Your task to perform on an android device: Empty the shopping cart on ebay.com. Search for "usb-b" on ebay.com, select the first entry, and add it to the cart. Image 0: 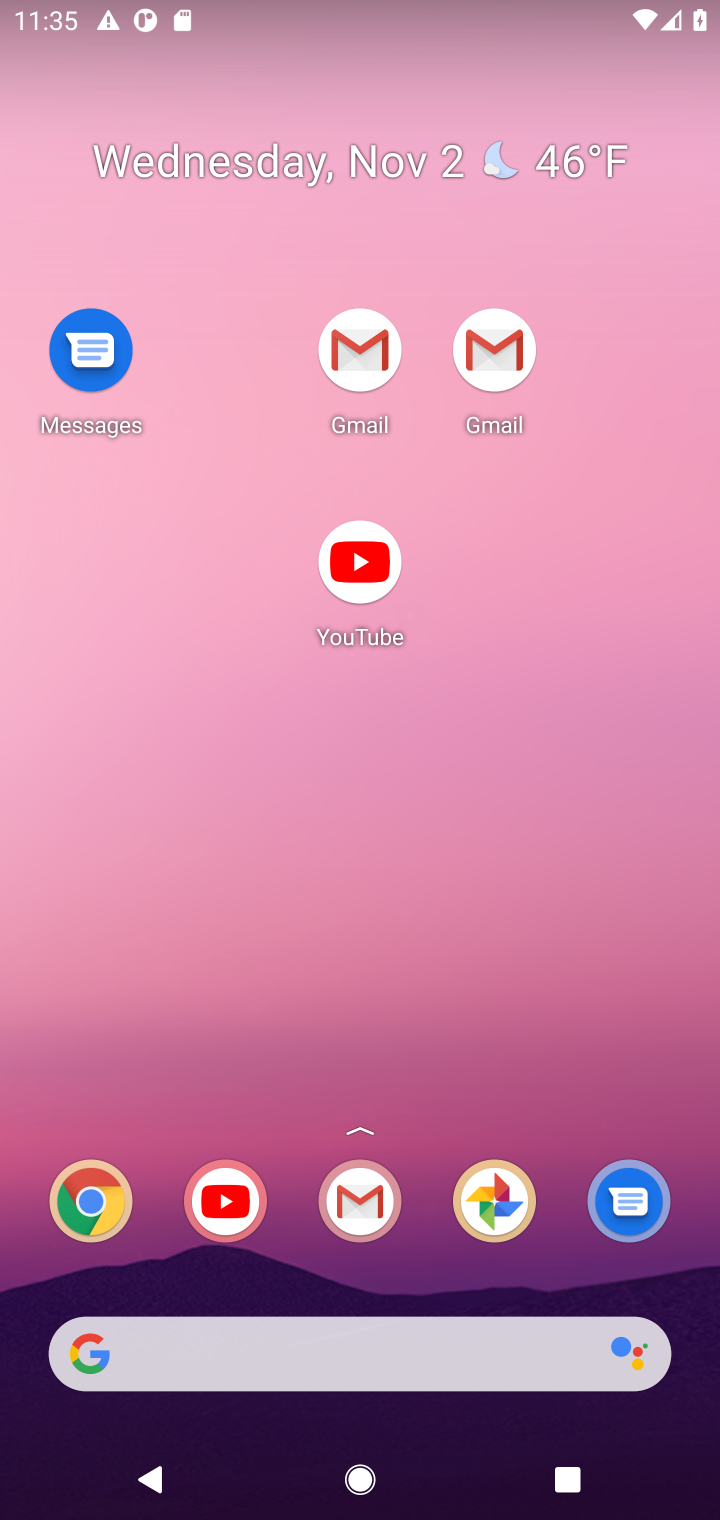
Step 0: press home button
Your task to perform on an android device: Empty the shopping cart on ebay.com. Search for "usb-b" on ebay.com, select the first entry, and add it to the cart. Image 1: 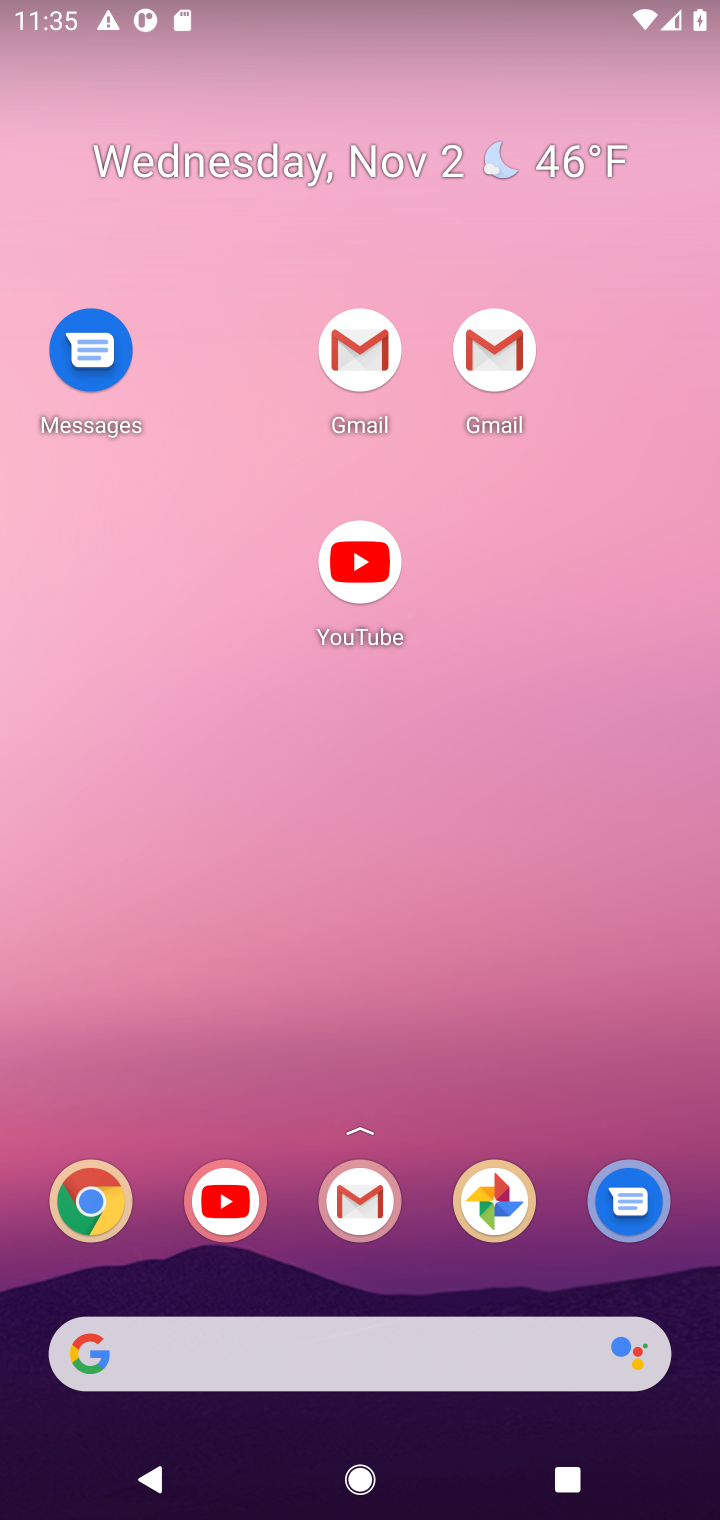
Step 1: press home button
Your task to perform on an android device: Empty the shopping cart on ebay.com. Search for "usb-b" on ebay.com, select the first entry, and add it to the cart. Image 2: 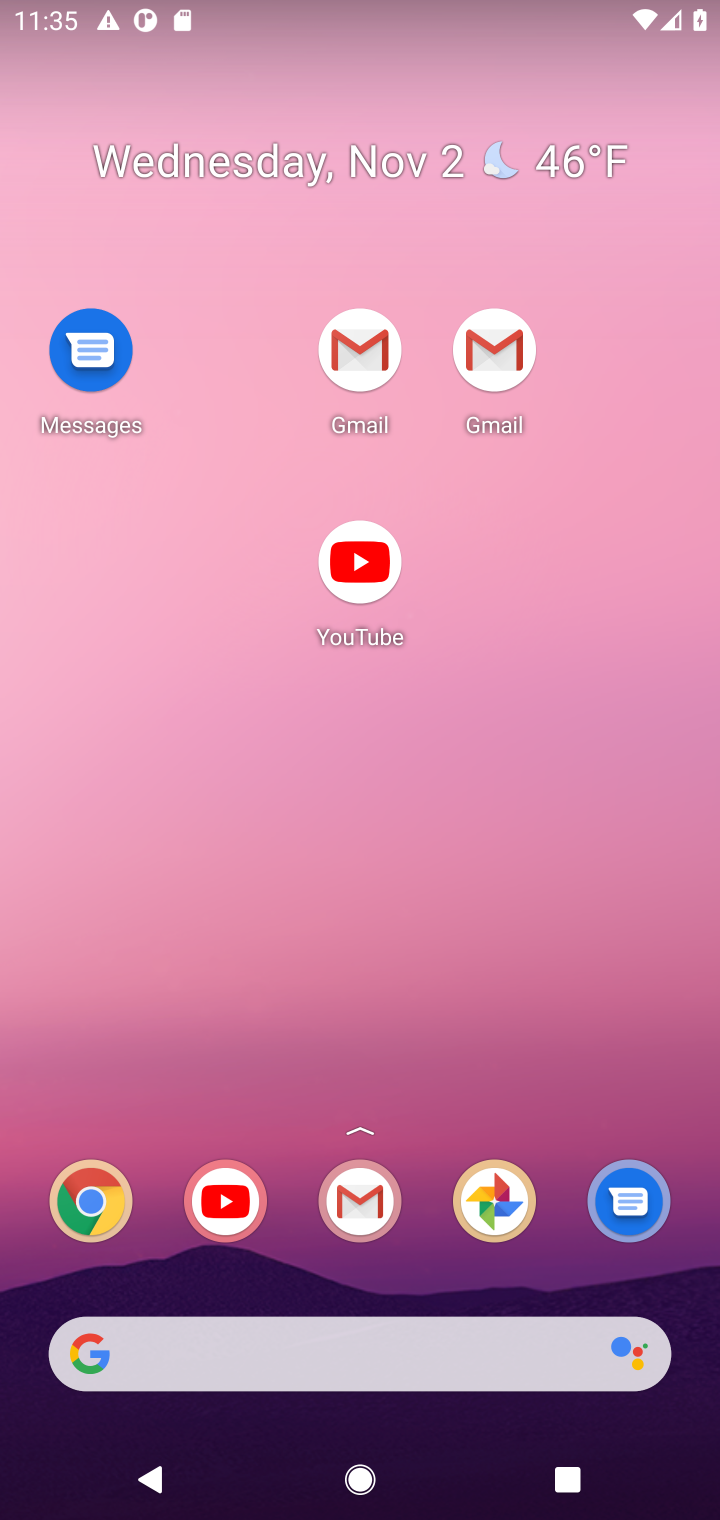
Step 2: drag from (422, 1303) to (425, 333)
Your task to perform on an android device: Empty the shopping cart on ebay.com. Search for "usb-b" on ebay.com, select the first entry, and add it to the cart. Image 3: 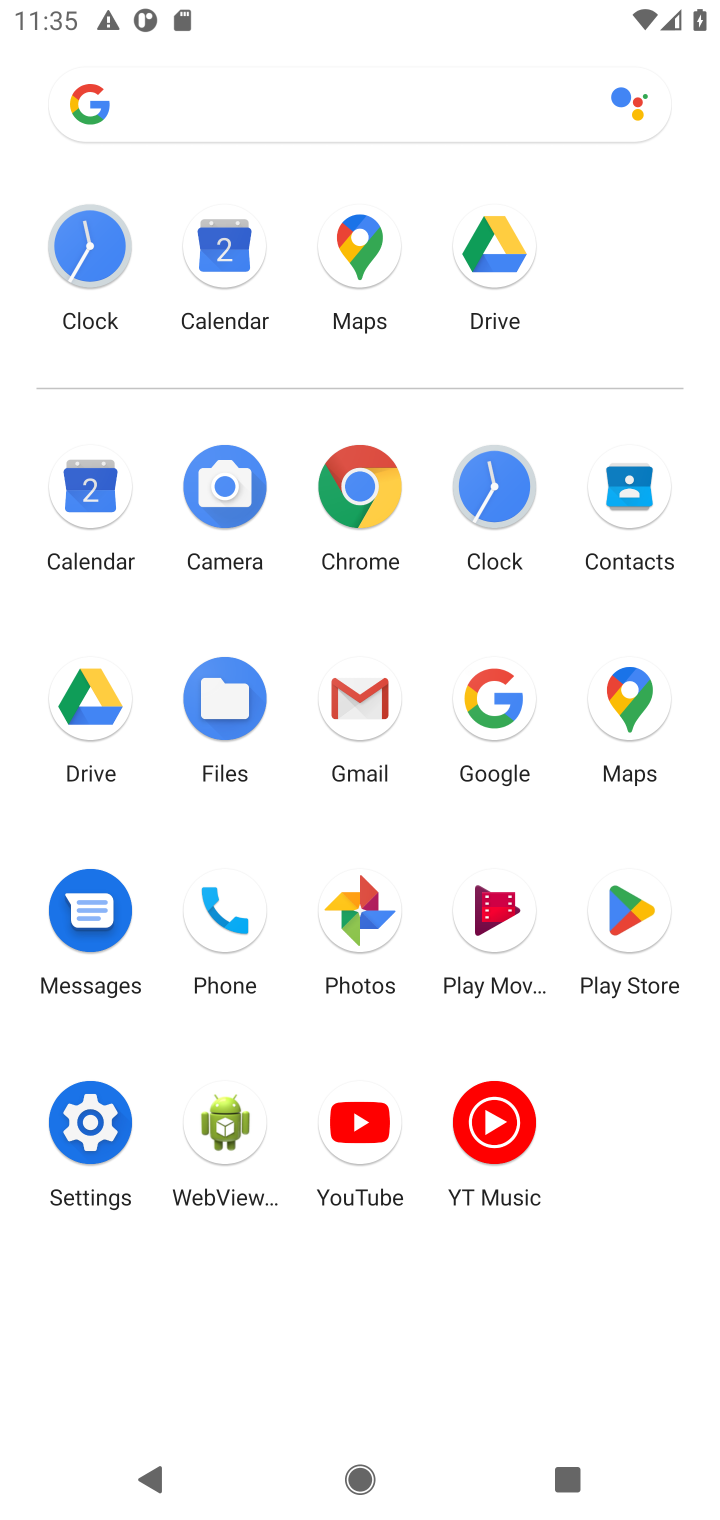
Step 3: click (359, 487)
Your task to perform on an android device: Empty the shopping cart on ebay.com. Search for "usb-b" on ebay.com, select the first entry, and add it to the cart. Image 4: 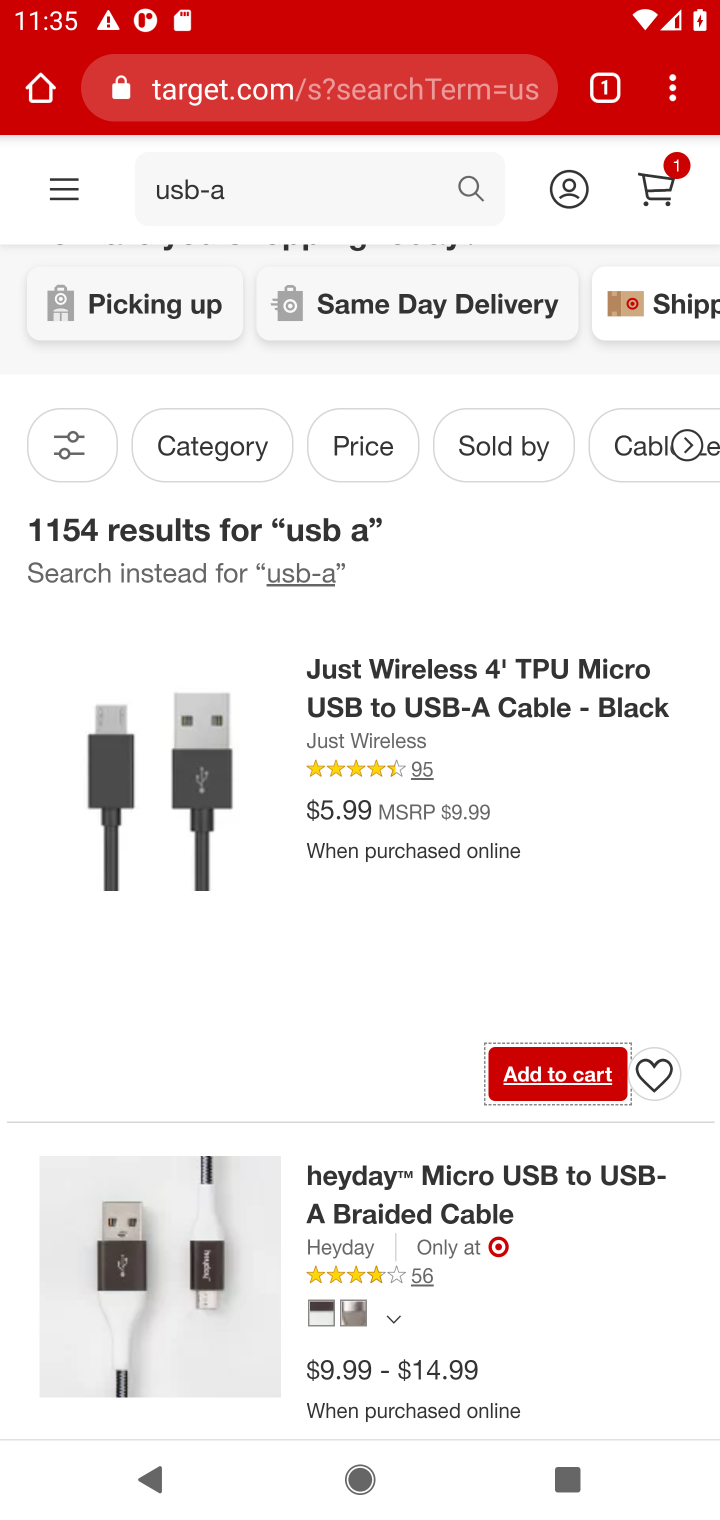
Step 4: click (461, 92)
Your task to perform on an android device: Empty the shopping cart on ebay.com. Search for "usb-b" on ebay.com, select the first entry, and add it to the cart. Image 5: 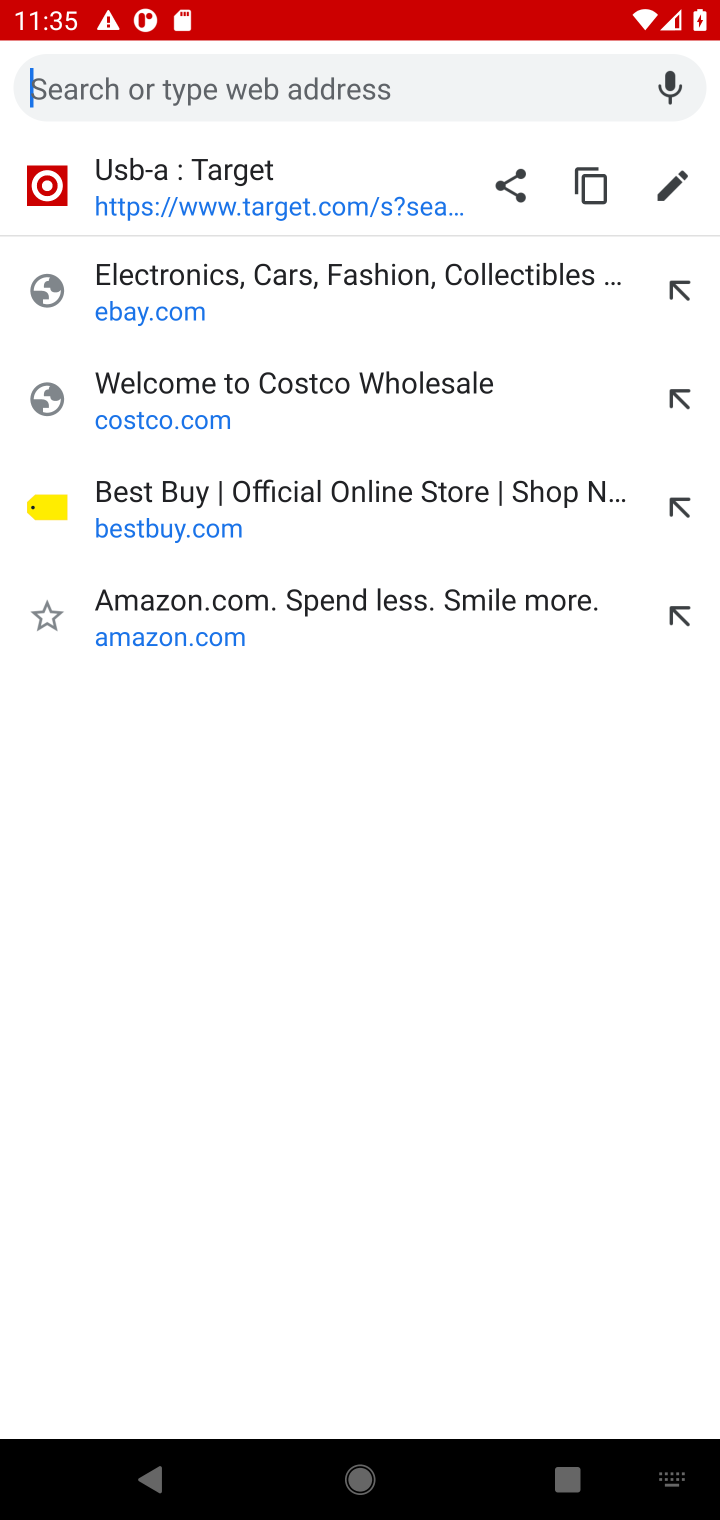
Step 5: type "ebay.com"
Your task to perform on an android device: Empty the shopping cart on ebay.com. Search for "usb-b" on ebay.com, select the first entry, and add it to the cart. Image 6: 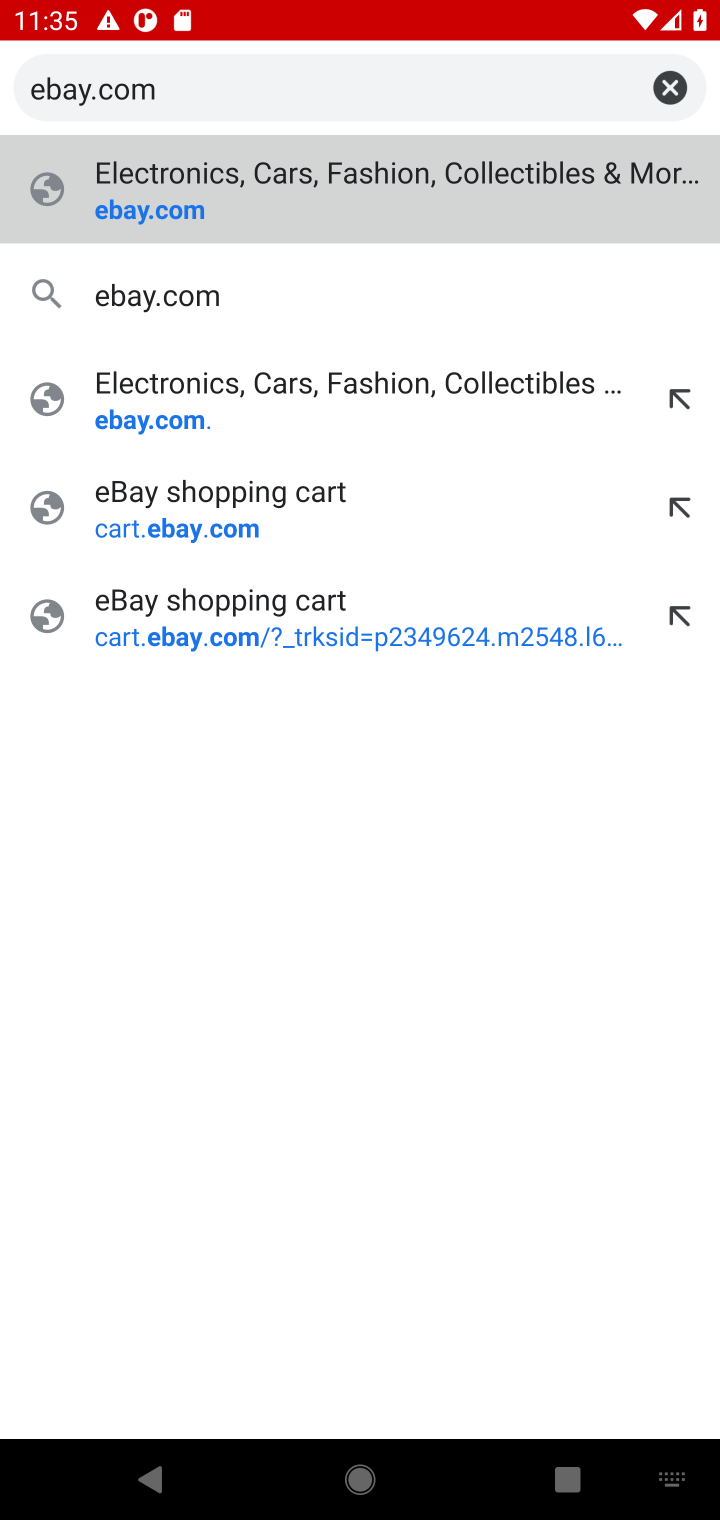
Step 6: press enter
Your task to perform on an android device: Empty the shopping cart on ebay.com. Search for "usb-b" on ebay.com, select the first entry, and add it to the cart. Image 7: 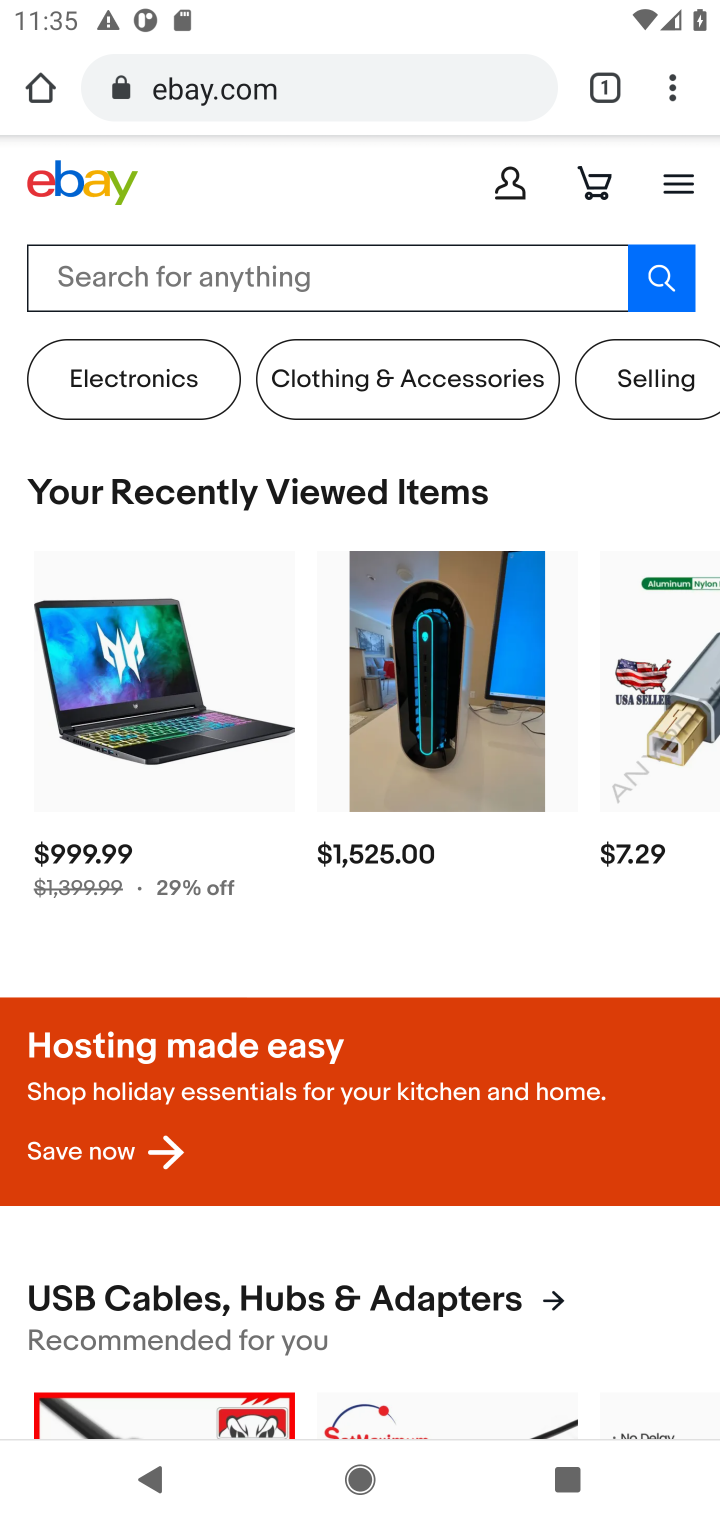
Step 7: click (602, 176)
Your task to perform on an android device: Empty the shopping cart on ebay.com. Search for "usb-b" on ebay.com, select the first entry, and add it to the cart. Image 8: 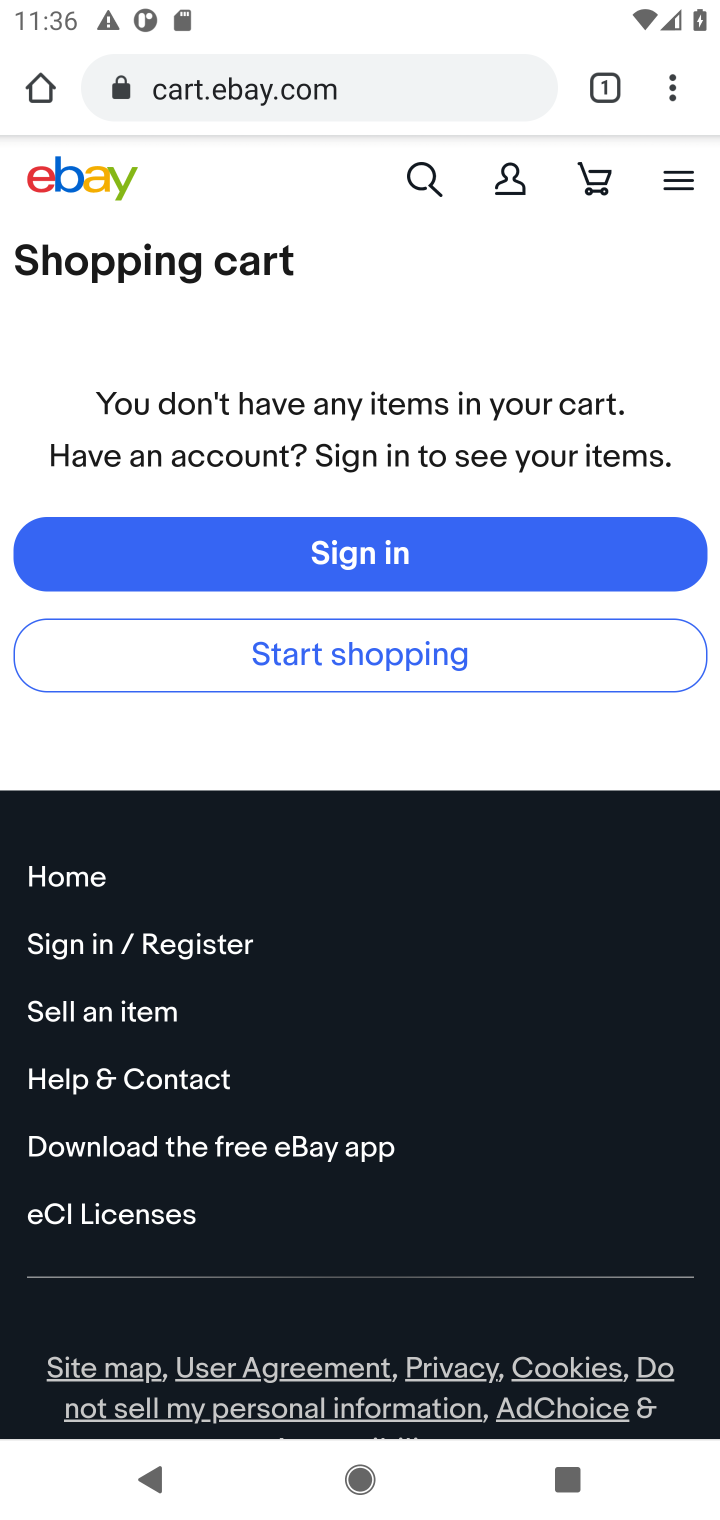
Step 8: click (436, 162)
Your task to perform on an android device: Empty the shopping cart on ebay.com. Search for "usb-b" on ebay.com, select the first entry, and add it to the cart. Image 9: 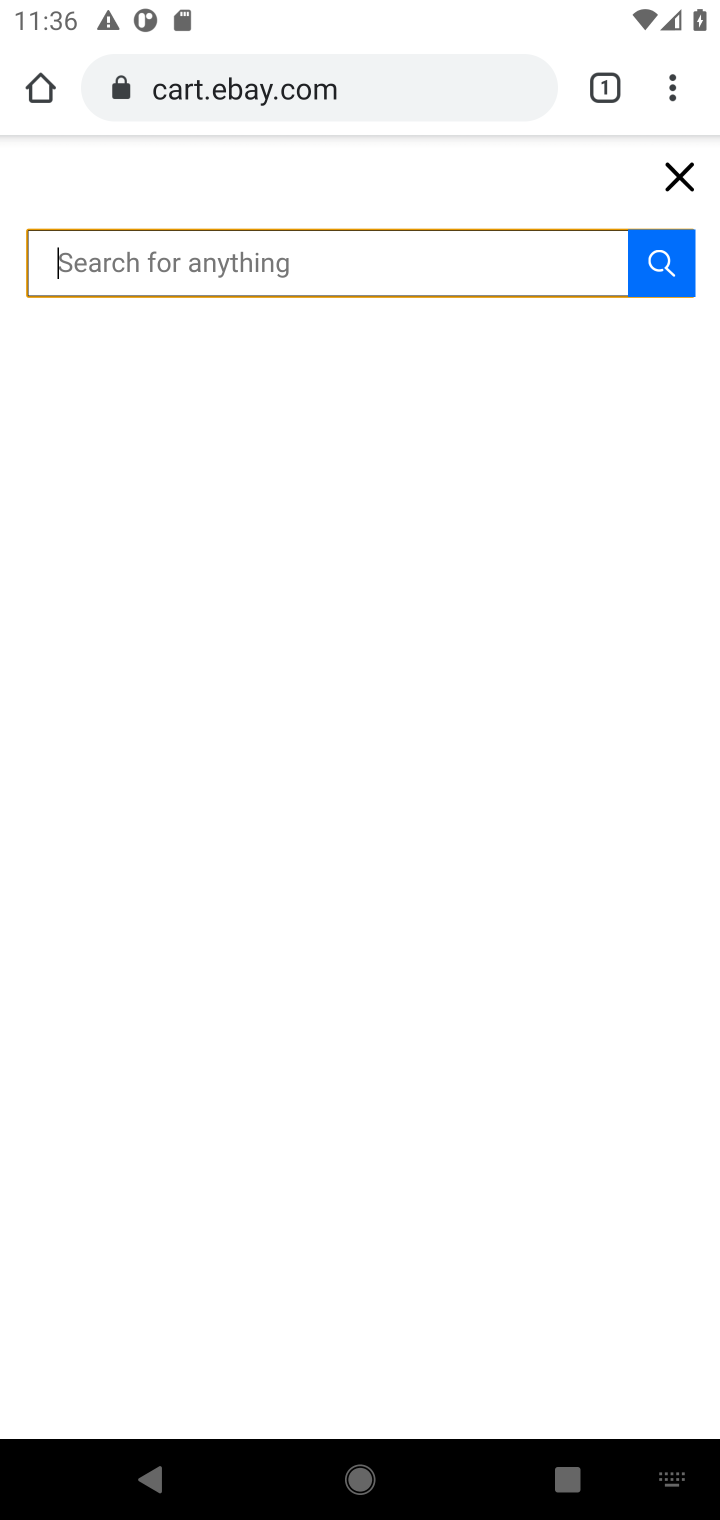
Step 9: type ""
Your task to perform on an android device: Empty the shopping cart on ebay.com. Search for "usb-b" on ebay.com, select the first entry, and add it to the cart. Image 10: 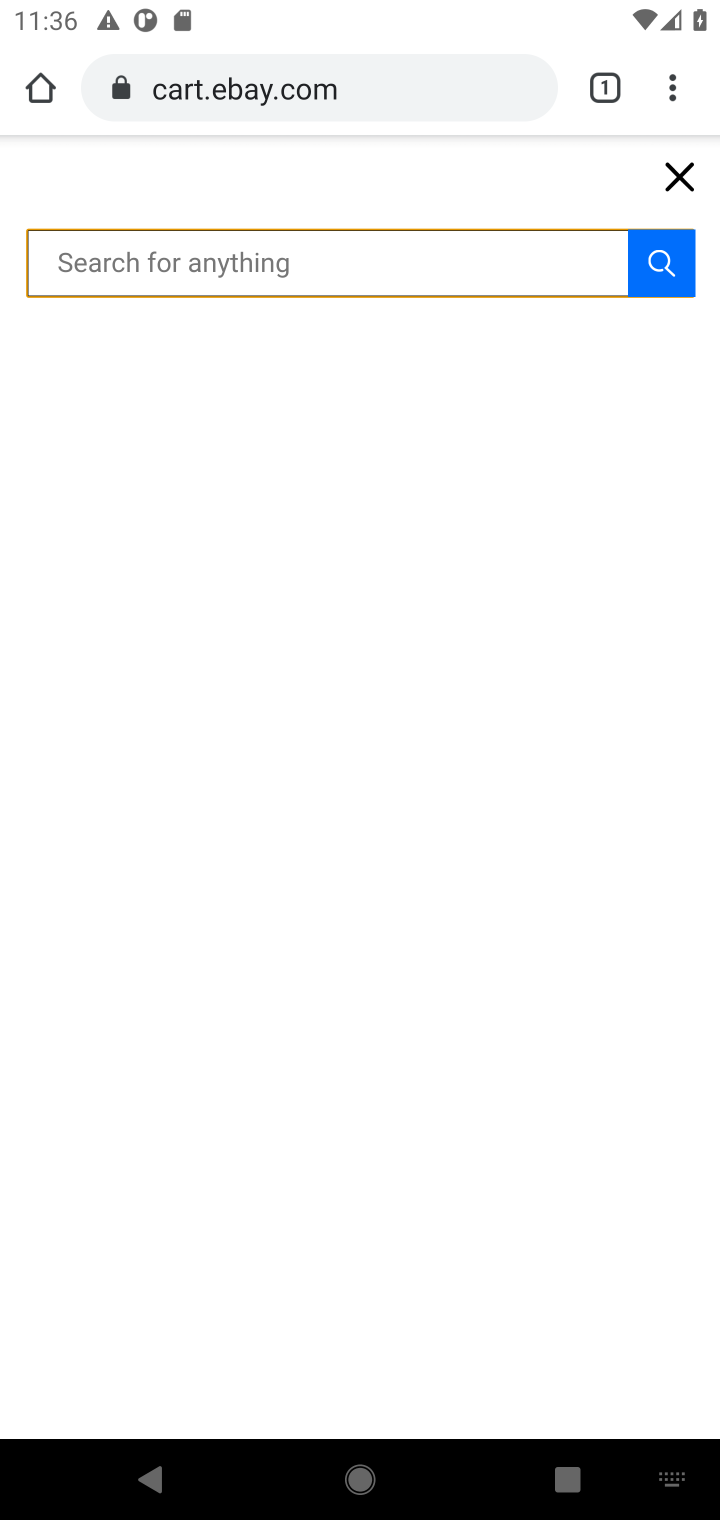
Step 10: type "usb-b"
Your task to perform on an android device: Empty the shopping cart on ebay.com. Search for "usb-b" on ebay.com, select the first entry, and add it to the cart. Image 11: 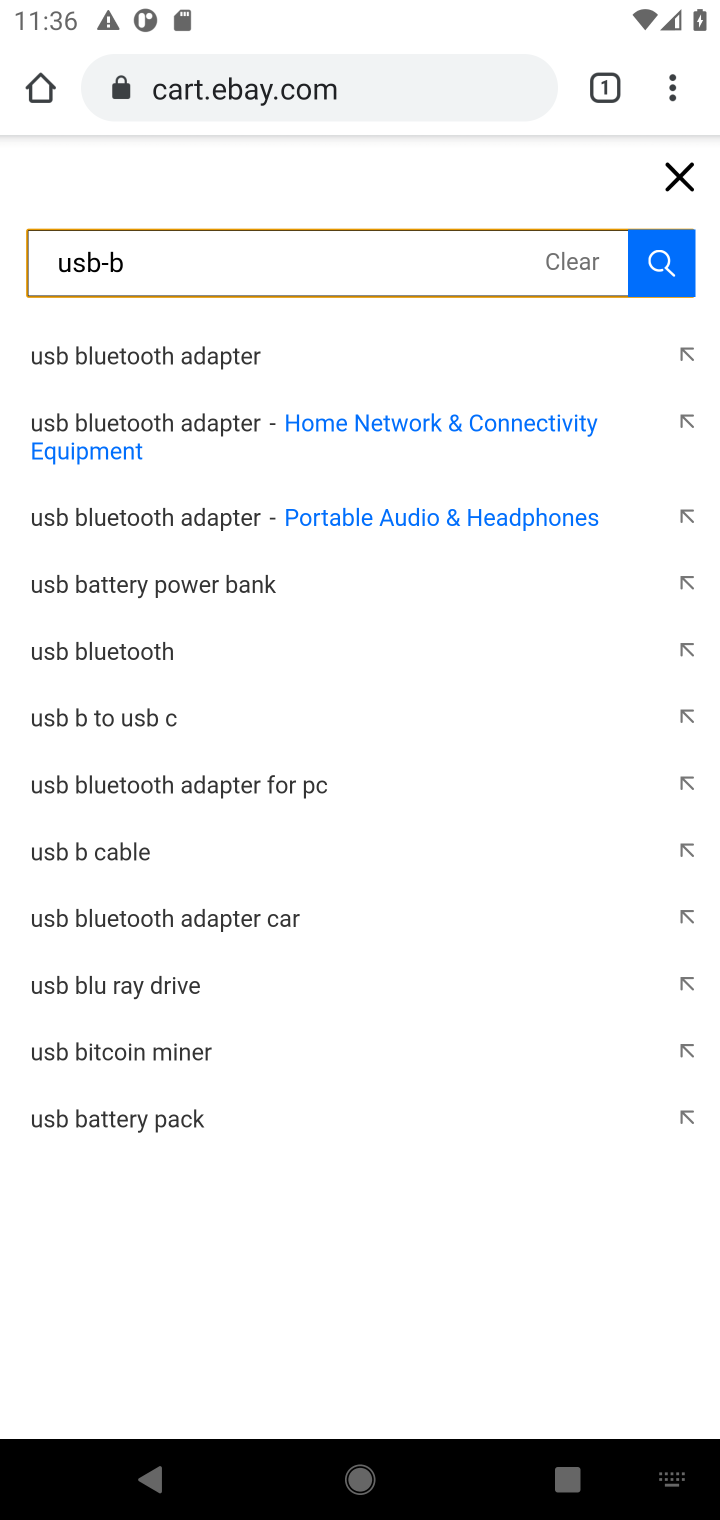
Step 11: press enter
Your task to perform on an android device: Empty the shopping cart on ebay.com. Search for "usb-b" on ebay.com, select the first entry, and add it to the cart. Image 12: 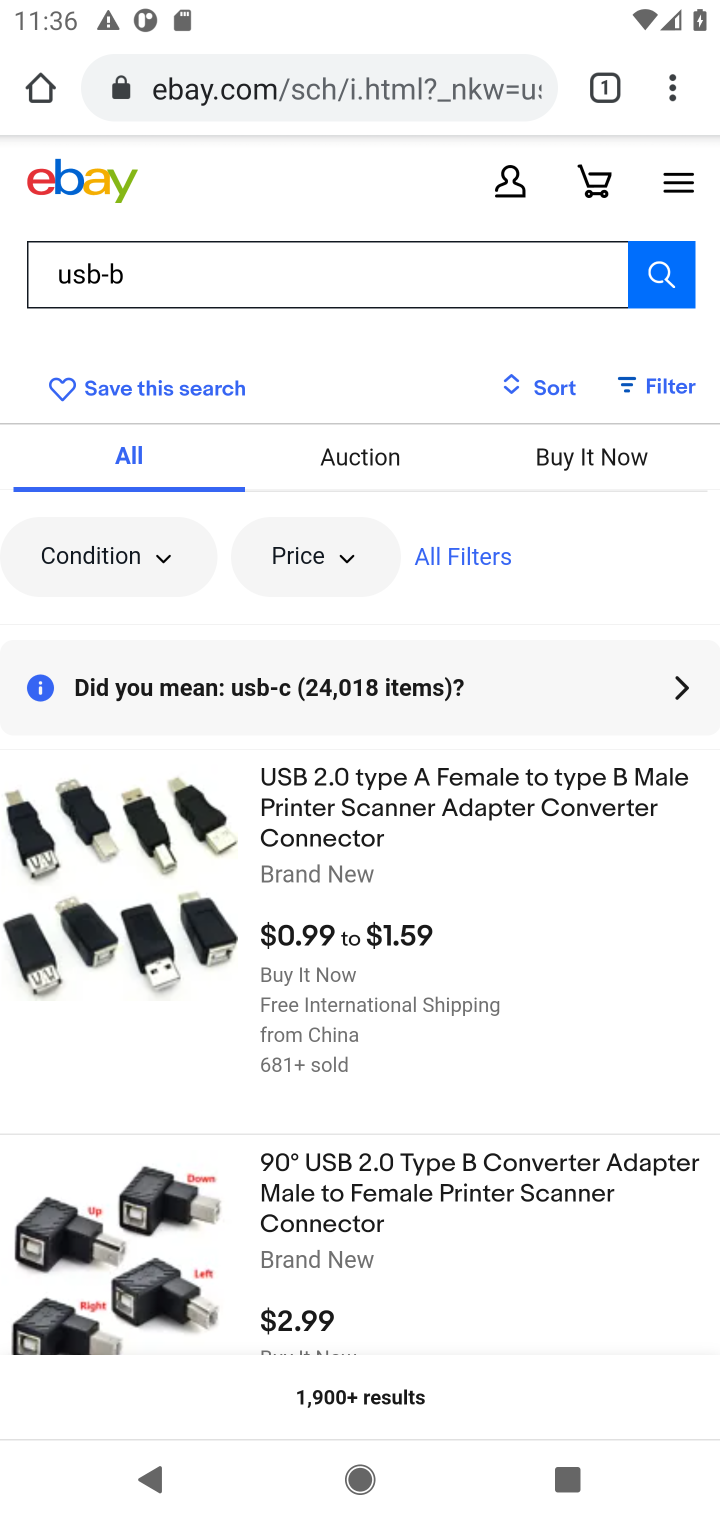
Step 12: click (143, 841)
Your task to perform on an android device: Empty the shopping cart on ebay.com. Search for "usb-b" on ebay.com, select the first entry, and add it to the cart. Image 13: 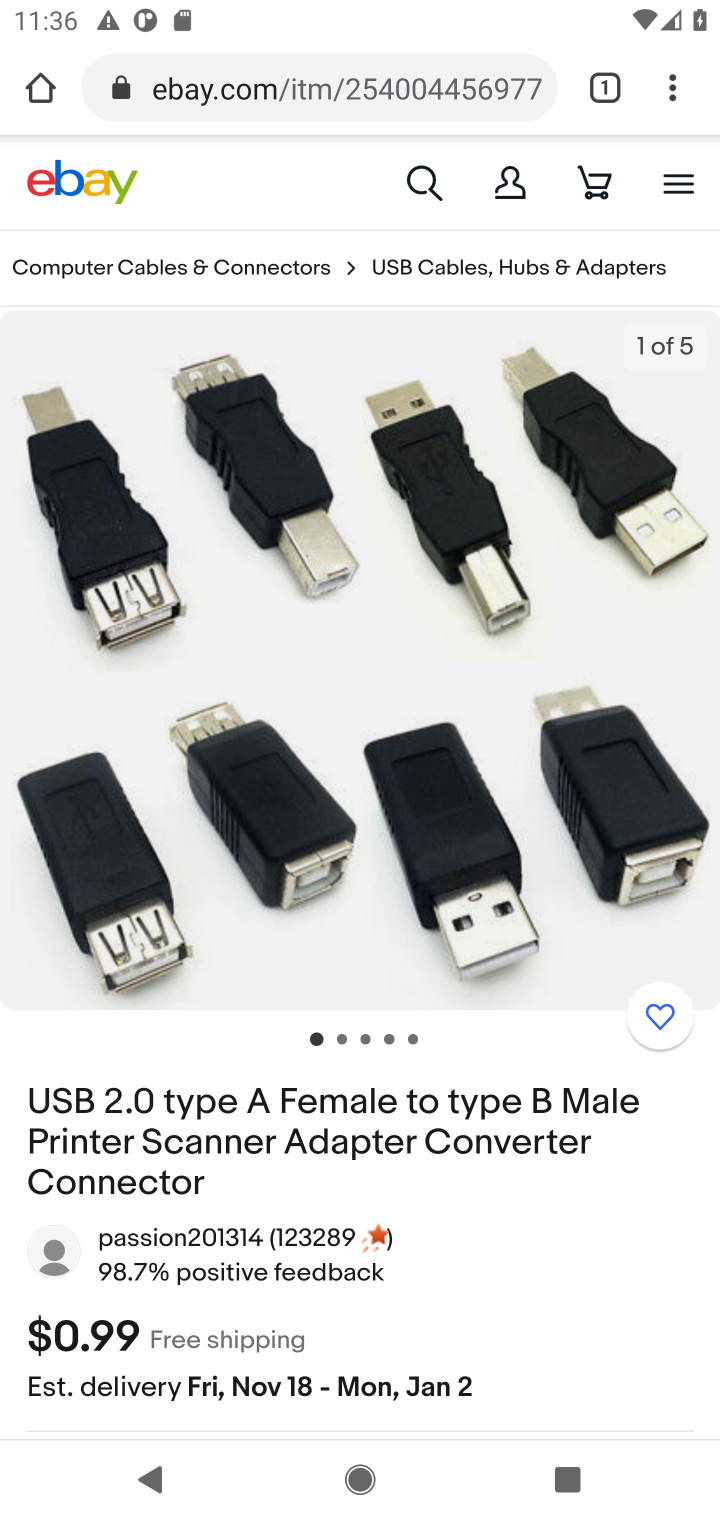
Step 13: drag from (431, 1083) to (442, 523)
Your task to perform on an android device: Empty the shopping cart on ebay.com. Search for "usb-b" on ebay.com, select the first entry, and add it to the cart. Image 14: 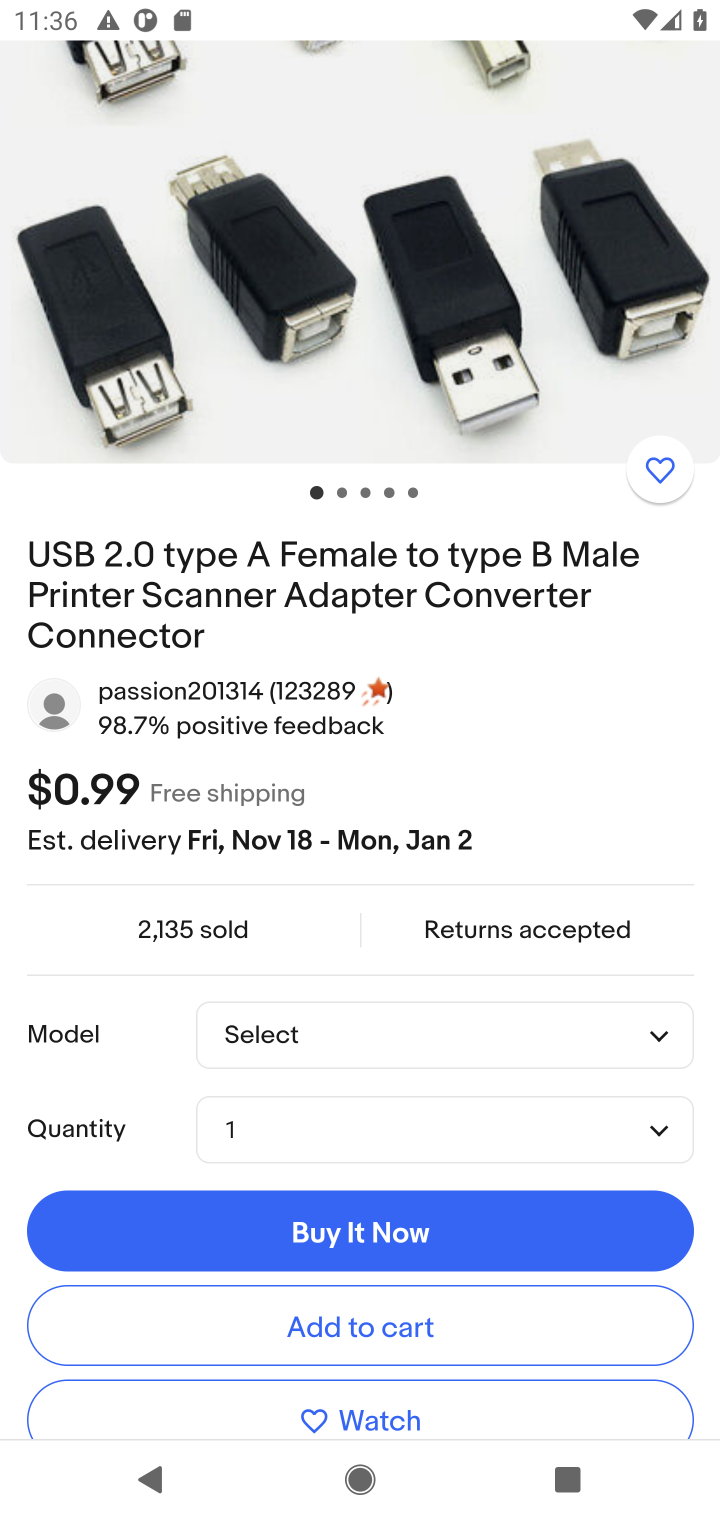
Step 14: click (463, 1335)
Your task to perform on an android device: Empty the shopping cart on ebay.com. Search for "usb-b" on ebay.com, select the first entry, and add it to the cart. Image 15: 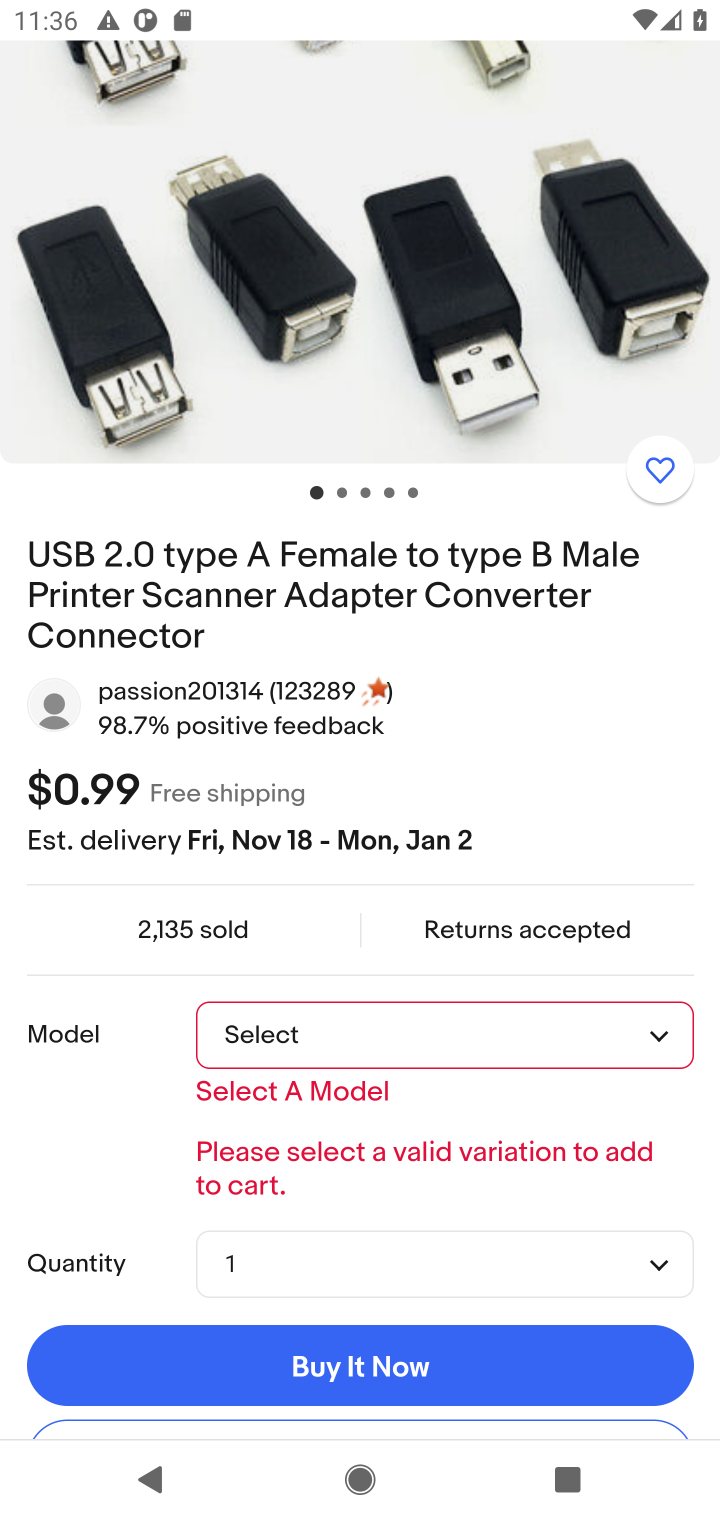
Step 15: click (514, 1045)
Your task to perform on an android device: Empty the shopping cart on ebay.com. Search for "usb-b" on ebay.com, select the first entry, and add it to the cart. Image 16: 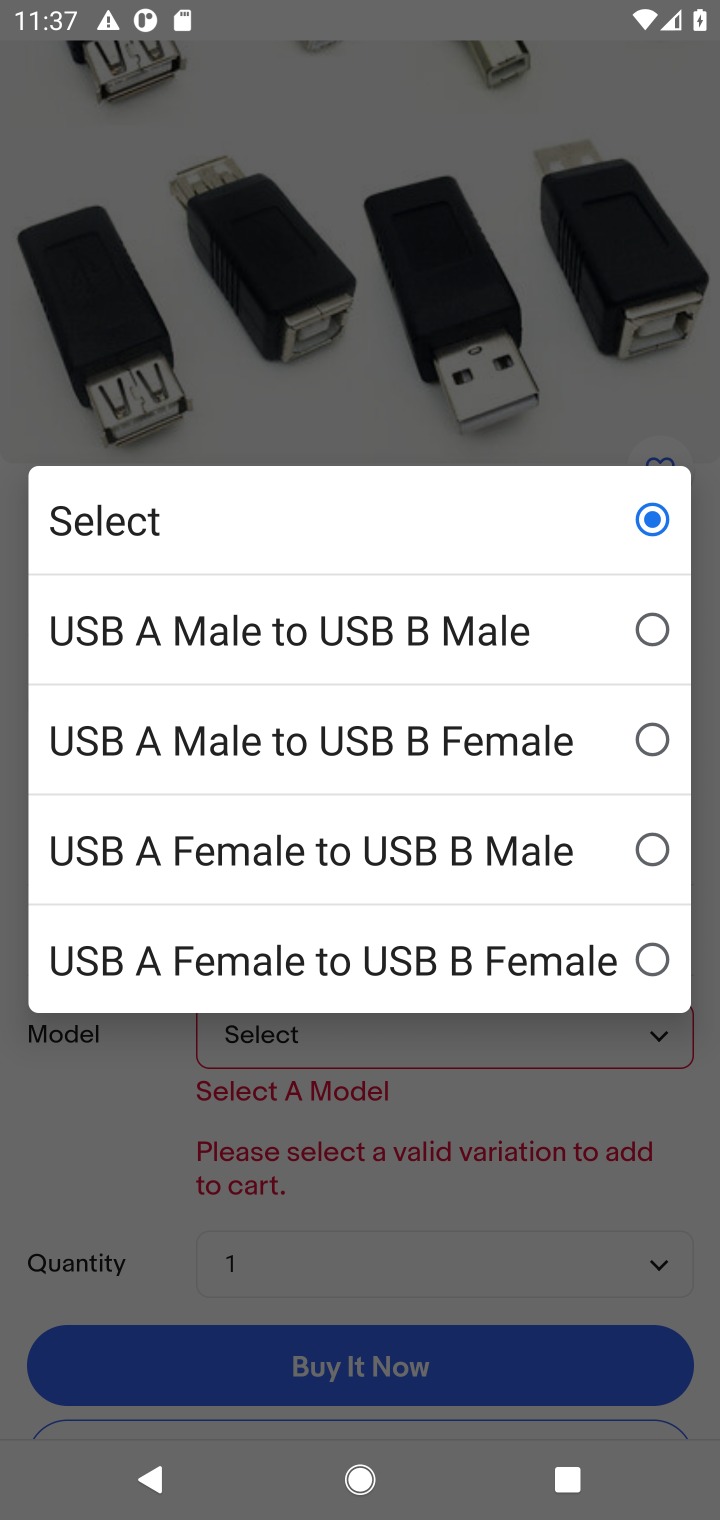
Step 16: click (557, 643)
Your task to perform on an android device: Empty the shopping cart on ebay.com. Search for "usb-b" on ebay.com, select the first entry, and add it to the cart. Image 17: 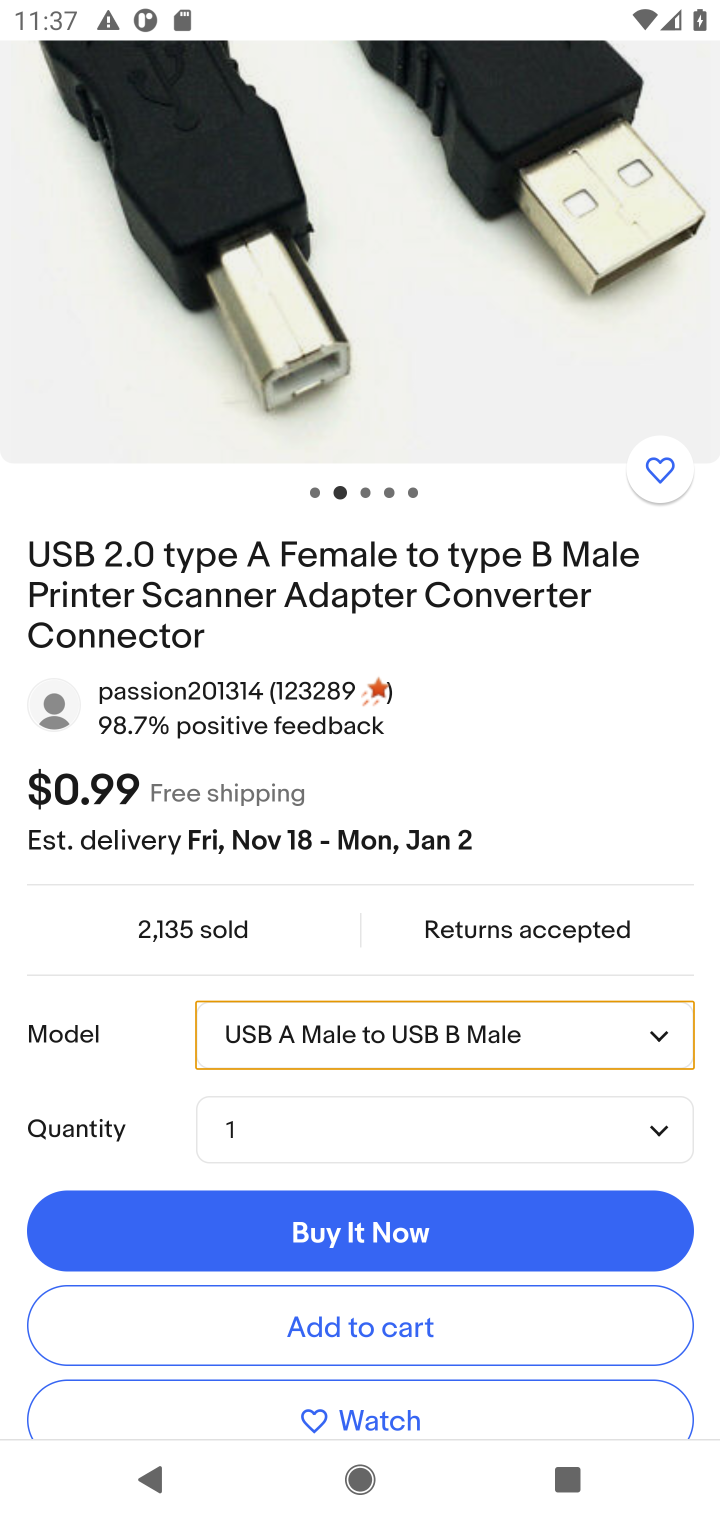
Step 17: click (480, 1329)
Your task to perform on an android device: Empty the shopping cart on ebay.com. Search for "usb-b" on ebay.com, select the first entry, and add it to the cart. Image 18: 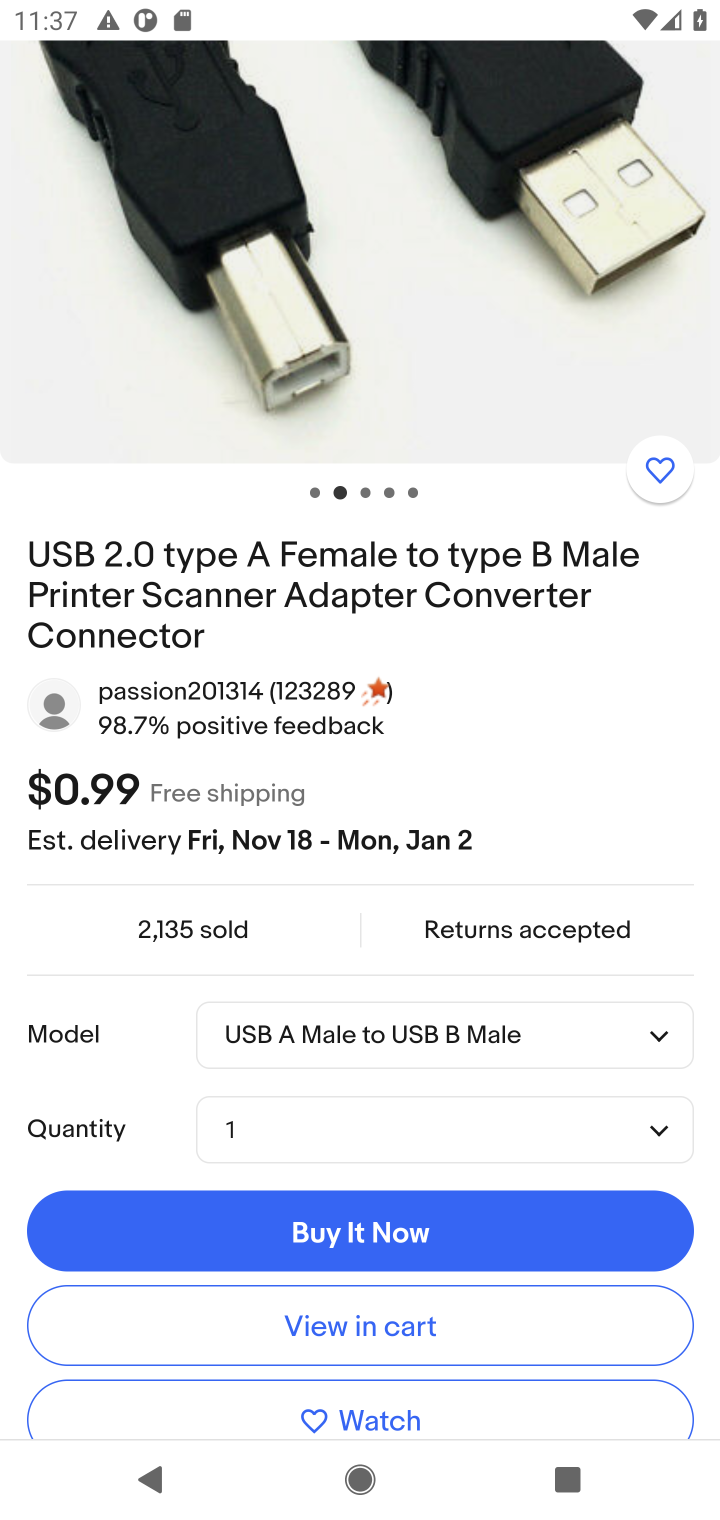
Step 18: task complete